Your task to perform on an android device: Go to Android settings Image 0: 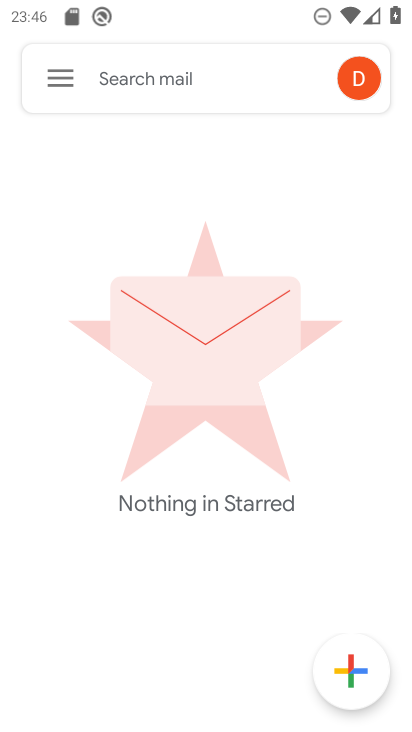
Step 0: press home button
Your task to perform on an android device: Go to Android settings Image 1: 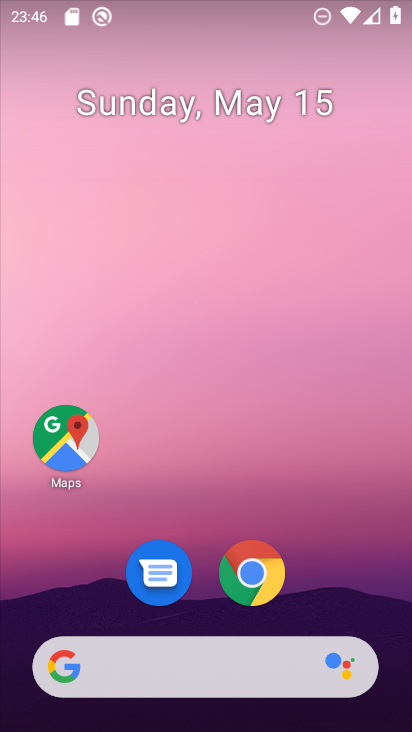
Step 1: drag from (374, 628) to (385, 8)
Your task to perform on an android device: Go to Android settings Image 2: 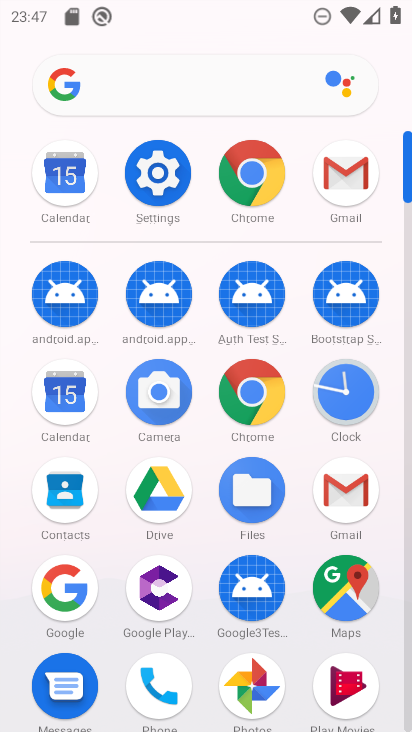
Step 2: click (159, 181)
Your task to perform on an android device: Go to Android settings Image 3: 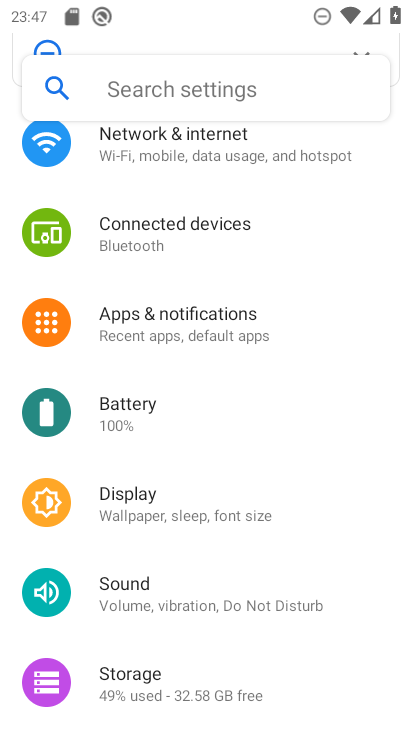
Step 3: click (203, 134)
Your task to perform on an android device: Go to Android settings Image 4: 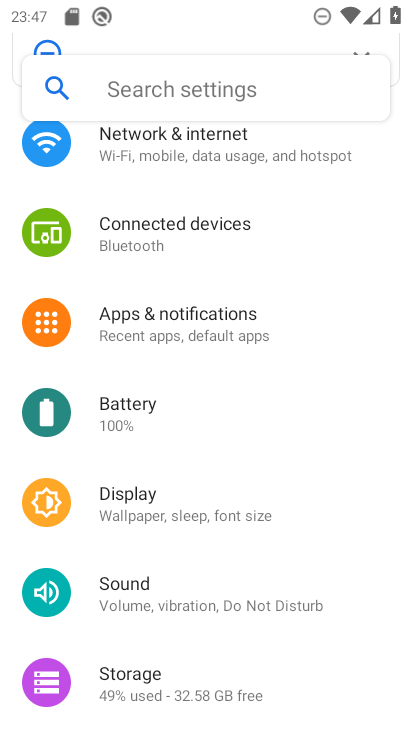
Step 4: drag from (282, 604) to (258, 279)
Your task to perform on an android device: Go to Android settings Image 5: 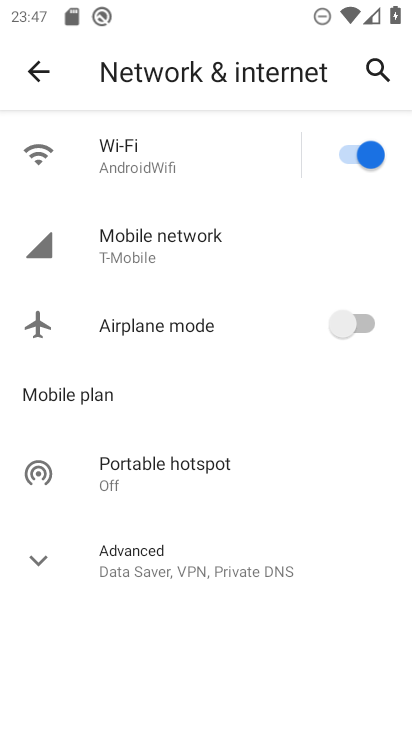
Step 5: click (33, 61)
Your task to perform on an android device: Go to Android settings Image 6: 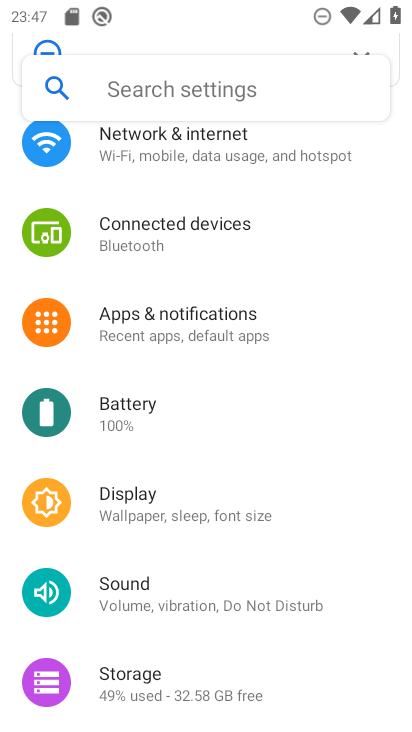
Step 6: drag from (280, 569) to (285, 189)
Your task to perform on an android device: Go to Android settings Image 7: 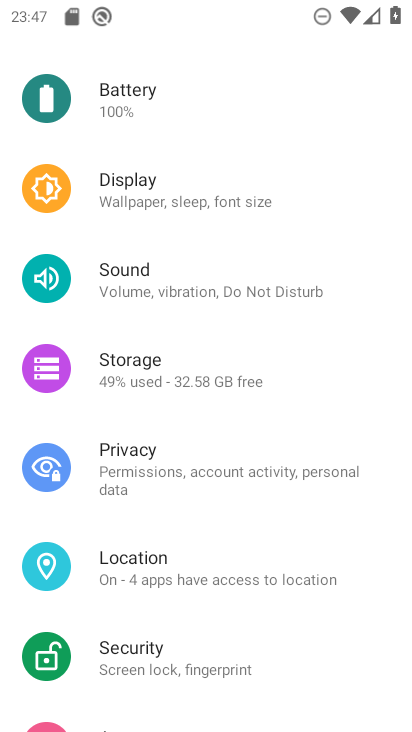
Step 7: drag from (265, 520) to (243, 130)
Your task to perform on an android device: Go to Android settings Image 8: 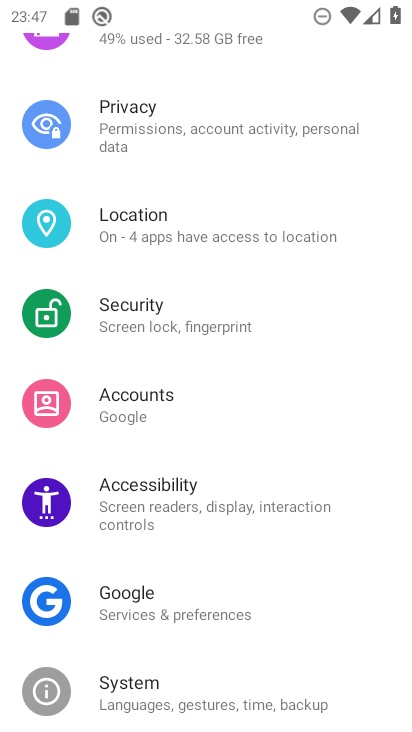
Step 8: drag from (310, 592) to (327, 290)
Your task to perform on an android device: Go to Android settings Image 9: 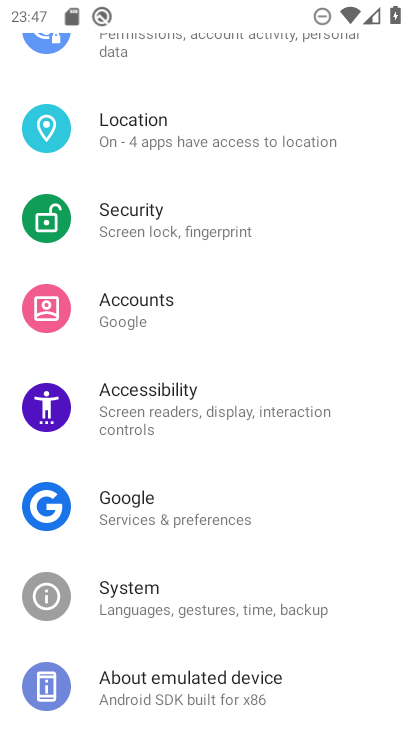
Step 9: click (154, 693)
Your task to perform on an android device: Go to Android settings Image 10: 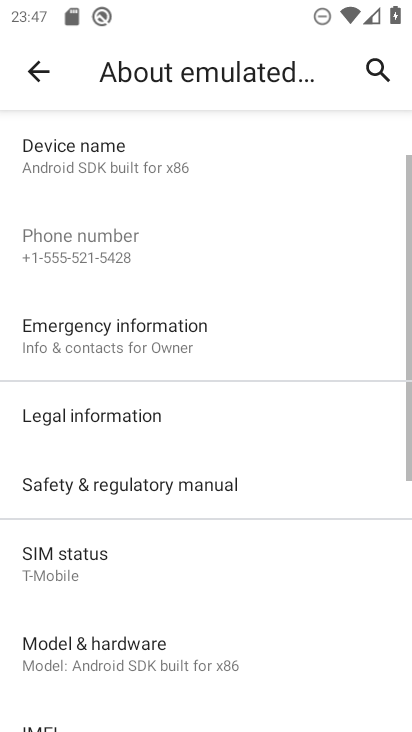
Step 10: drag from (155, 521) to (149, 308)
Your task to perform on an android device: Go to Android settings Image 11: 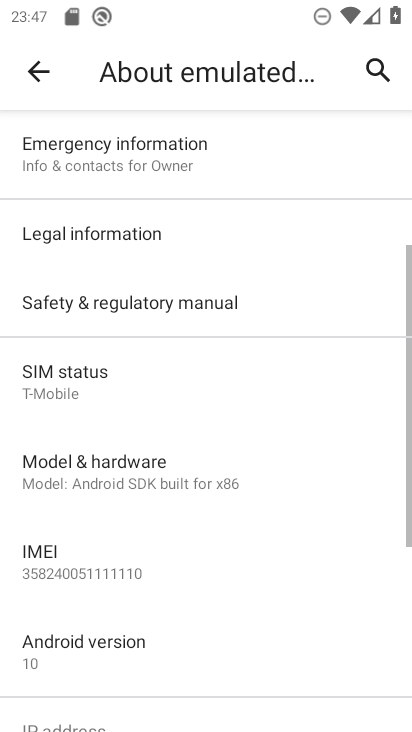
Step 11: click (109, 647)
Your task to perform on an android device: Go to Android settings Image 12: 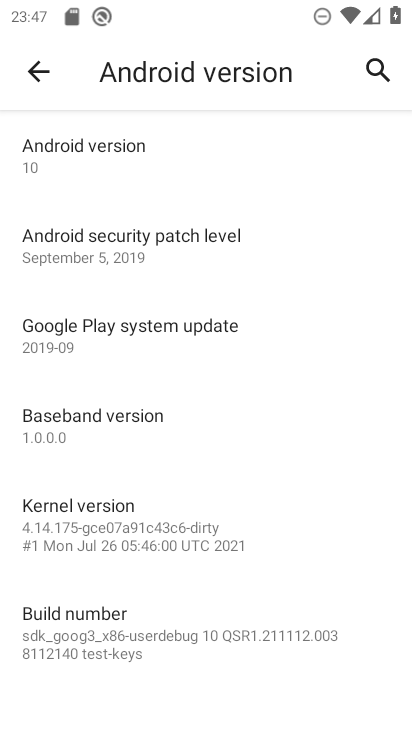
Step 12: task complete